Your task to perform on an android device: Open Google Chrome and open the bookmarks view Image 0: 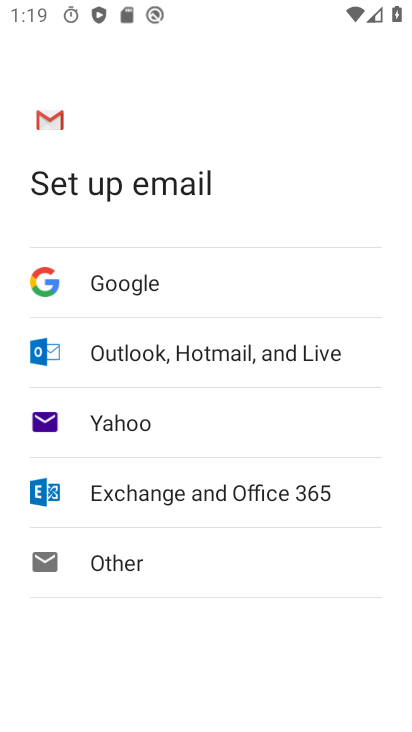
Step 0: press home button
Your task to perform on an android device: Open Google Chrome and open the bookmarks view Image 1: 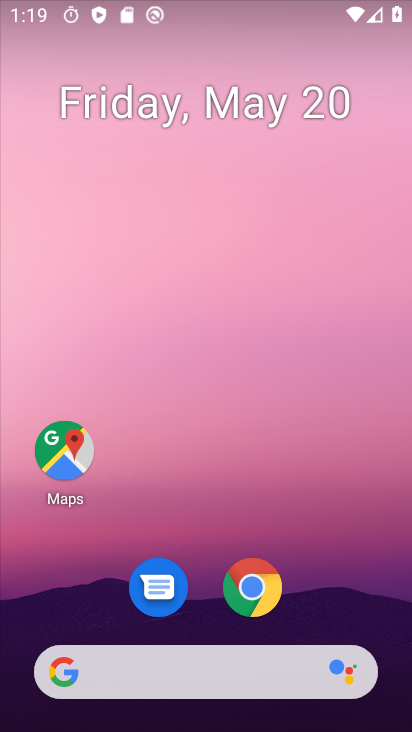
Step 1: click (256, 584)
Your task to perform on an android device: Open Google Chrome and open the bookmarks view Image 2: 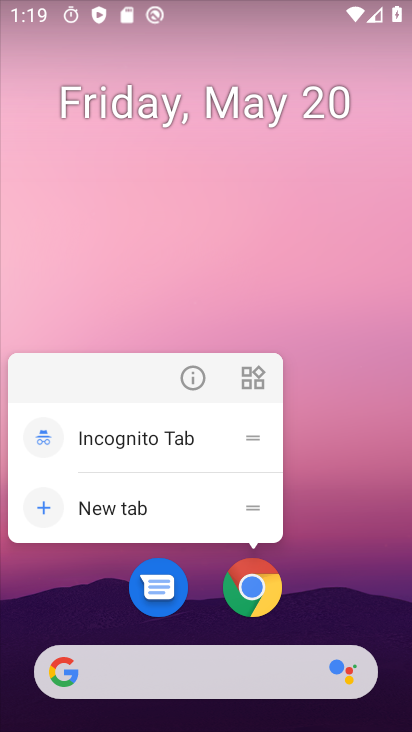
Step 2: click (257, 579)
Your task to perform on an android device: Open Google Chrome and open the bookmarks view Image 3: 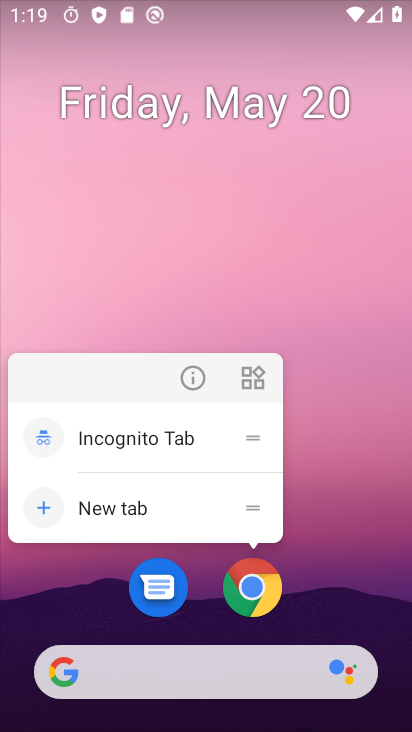
Step 3: click (257, 593)
Your task to perform on an android device: Open Google Chrome and open the bookmarks view Image 4: 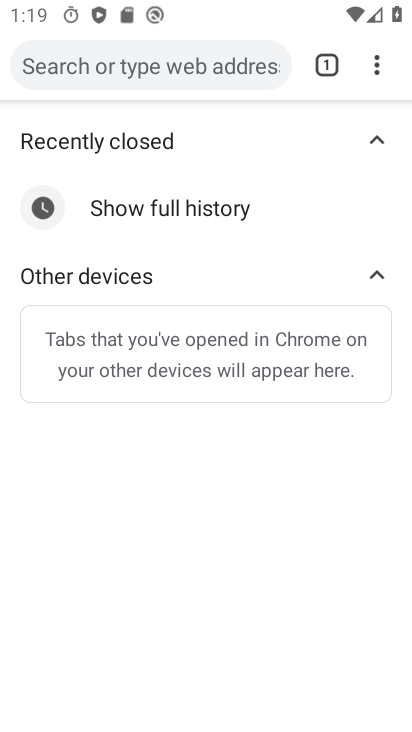
Step 4: click (373, 61)
Your task to perform on an android device: Open Google Chrome and open the bookmarks view Image 5: 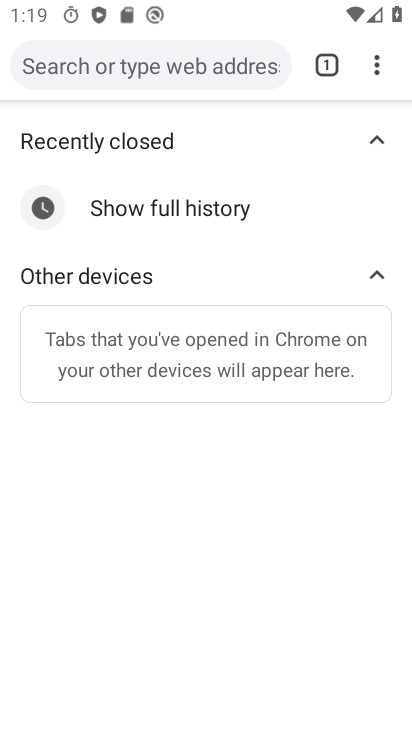
Step 5: task complete